Your task to perform on an android device: Open network settings Image 0: 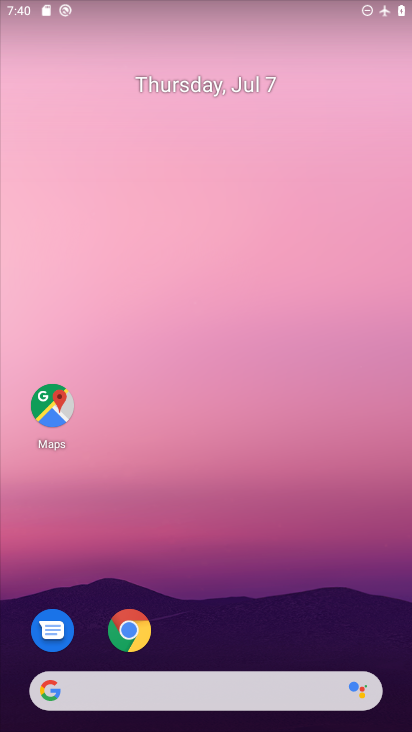
Step 0: drag from (230, 579) to (178, 193)
Your task to perform on an android device: Open network settings Image 1: 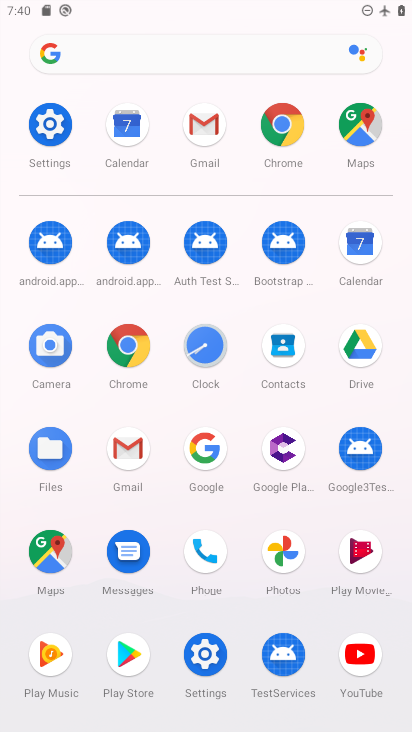
Step 1: click (54, 124)
Your task to perform on an android device: Open network settings Image 2: 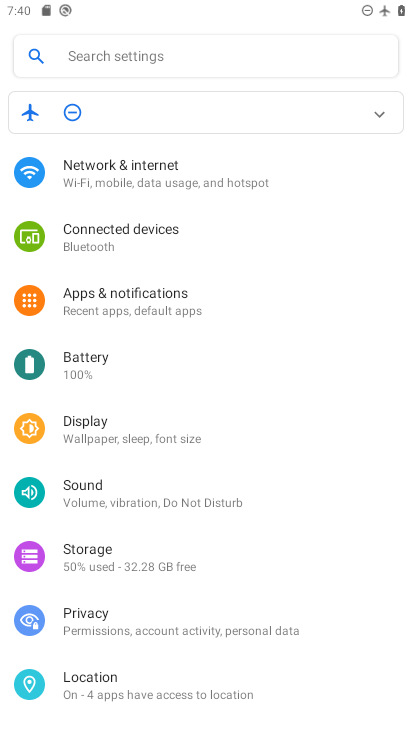
Step 2: click (130, 171)
Your task to perform on an android device: Open network settings Image 3: 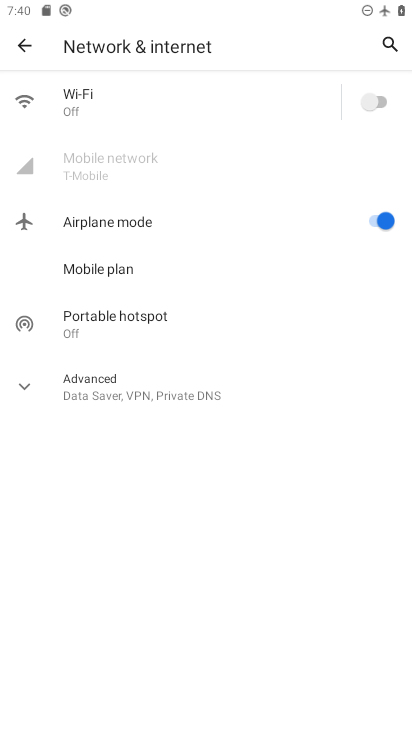
Step 3: task complete